Your task to perform on an android device: Open sound settings Image 0: 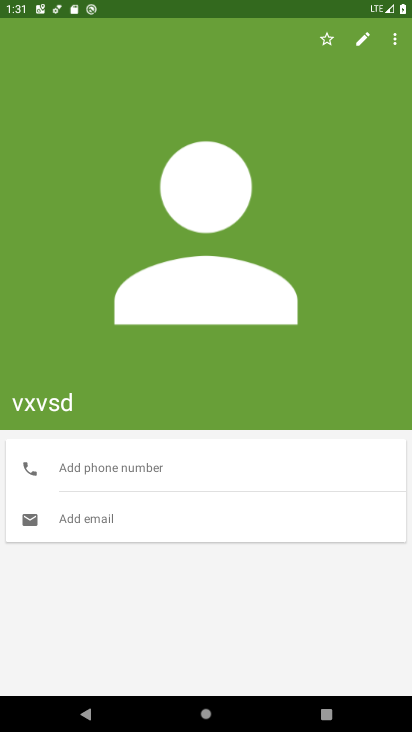
Step 0: press home button
Your task to perform on an android device: Open sound settings Image 1: 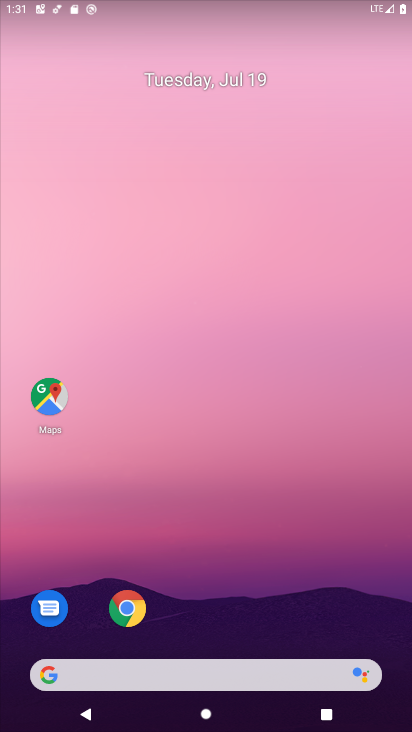
Step 1: drag from (253, 608) to (152, 91)
Your task to perform on an android device: Open sound settings Image 2: 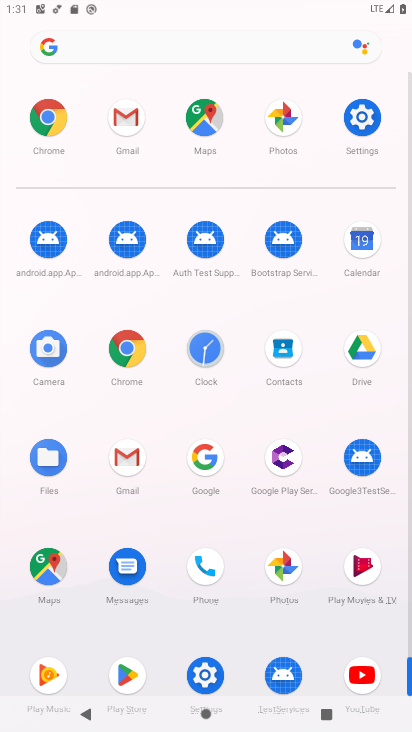
Step 2: click (203, 681)
Your task to perform on an android device: Open sound settings Image 3: 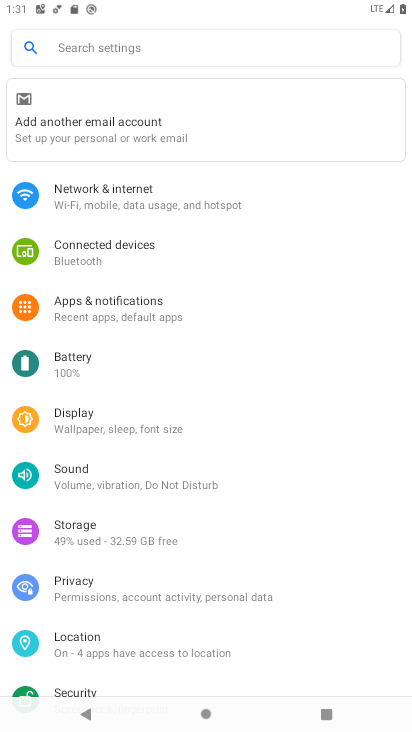
Step 3: click (128, 489)
Your task to perform on an android device: Open sound settings Image 4: 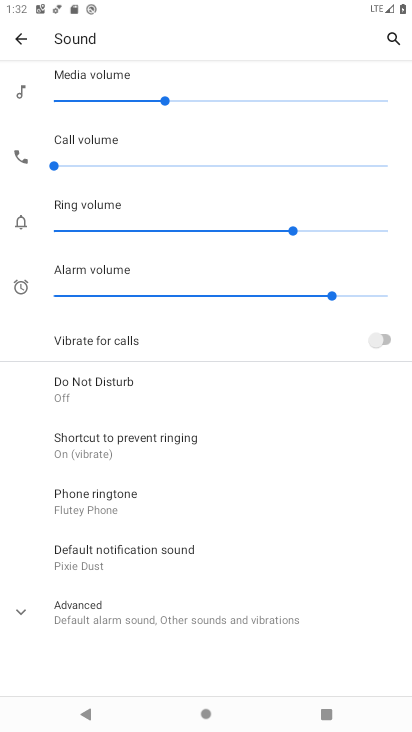
Step 4: task complete